Your task to perform on an android device: Go to privacy settings Image 0: 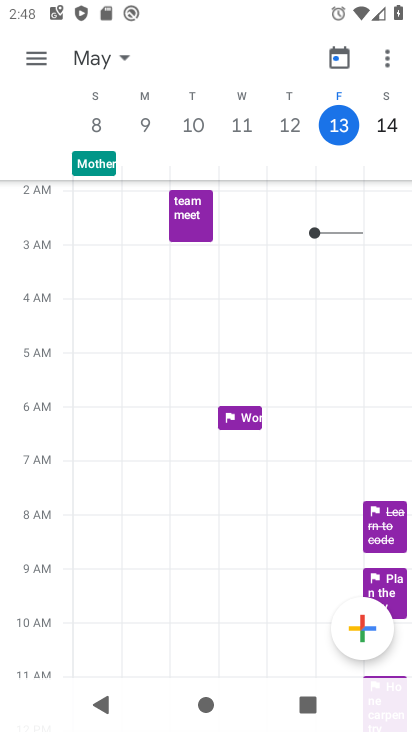
Step 0: press home button
Your task to perform on an android device: Go to privacy settings Image 1: 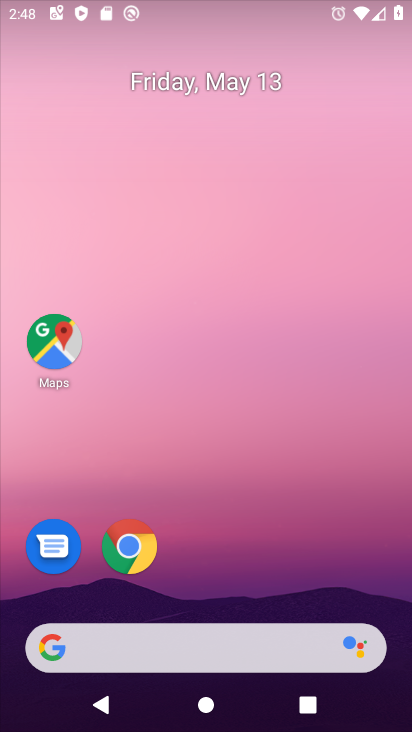
Step 1: drag from (275, 555) to (256, 60)
Your task to perform on an android device: Go to privacy settings Image 2: 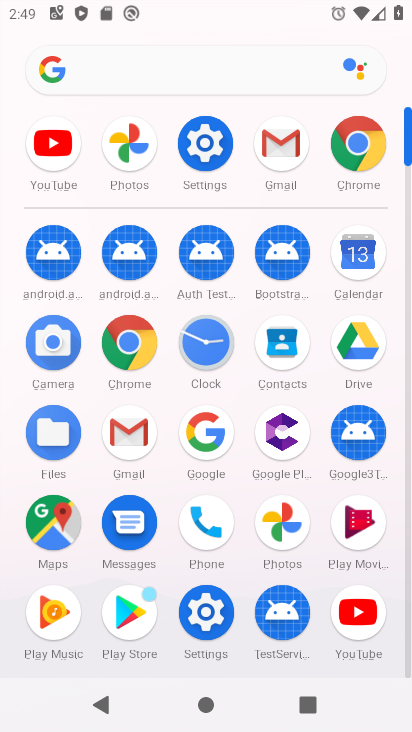
Step 2: click (204, 137)
Your task to perform on an android device: Go to privacy settings Image 3: 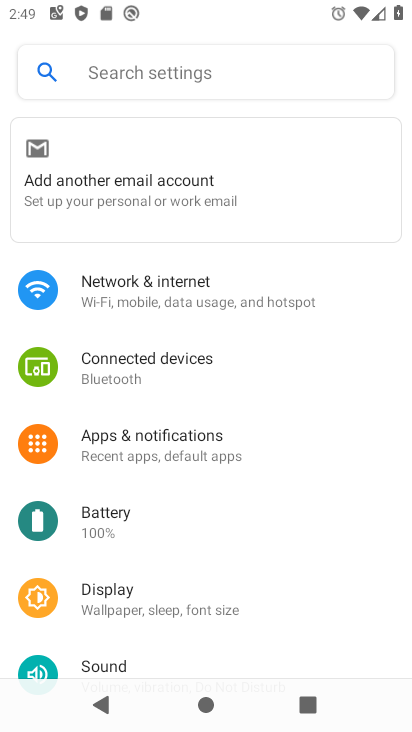
Step 3: drag from (193, 702) to (233, 204)
Your task to perform on an android device: Go to privacy settings Image 4: 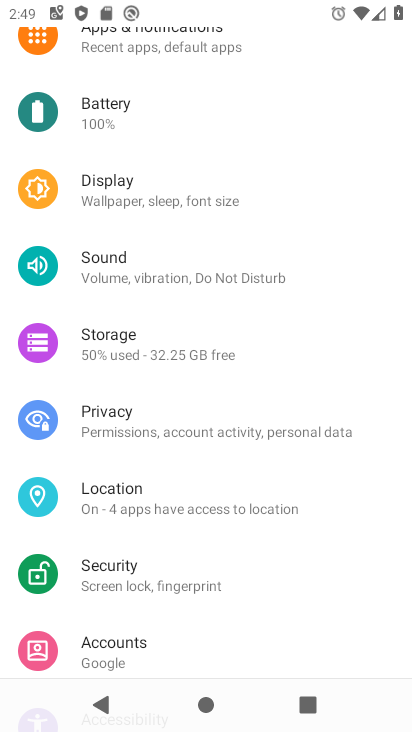
Step 4: drag from (156, 584) to (233, 260)
Your task to perform on an android device: Go to privacy settings Image 5: 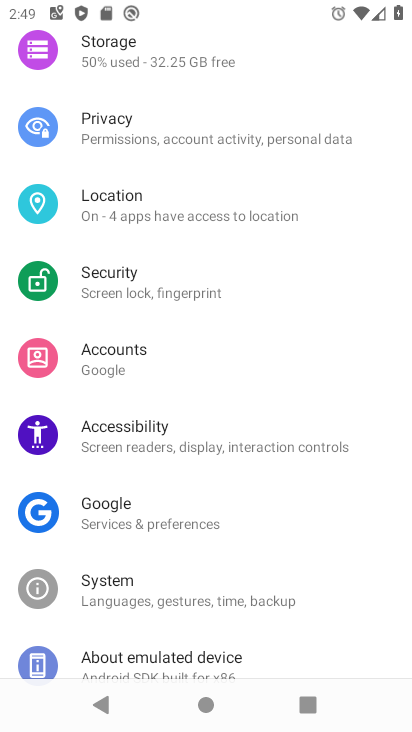
Step 5: drag from (116, 545) to (161, 731)
Your task to perform on an android device: Go to privacy settings Image 6: 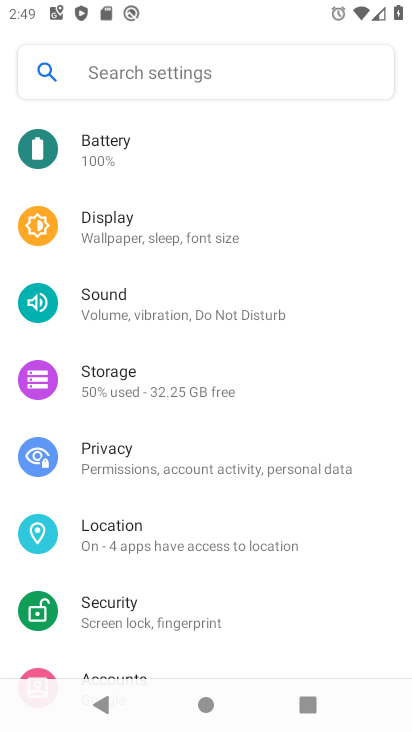
Step 6: click (164, 471)
Your task to perform on an android device: Go to privacy settings Image 7: 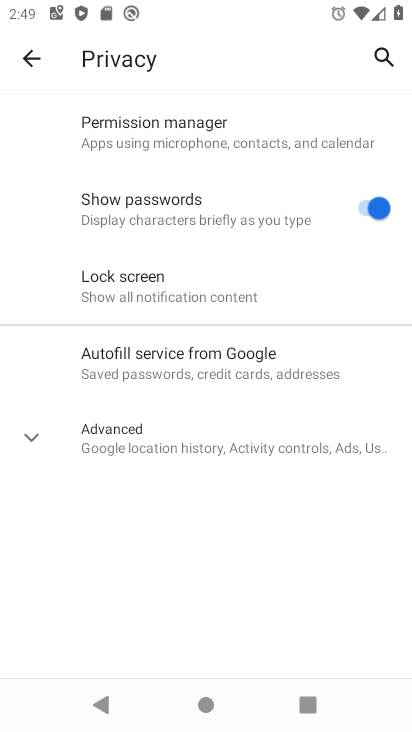
Step 7: task complete